Your task to perform on an android device: change keyboard looks Image 0: 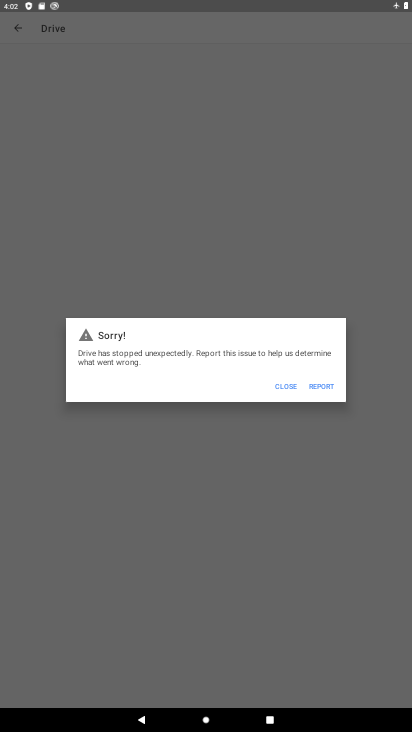
Step 0: press home button
Your task to perform on an android device: change keyboard looks Image 1: 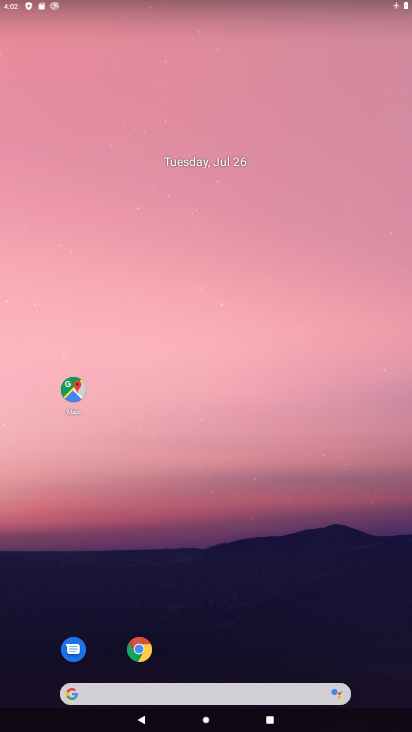
Step 1: drag from (247, 630) to (253, 253)
Your task to perform on an android device: change keyboard looks Image 2: 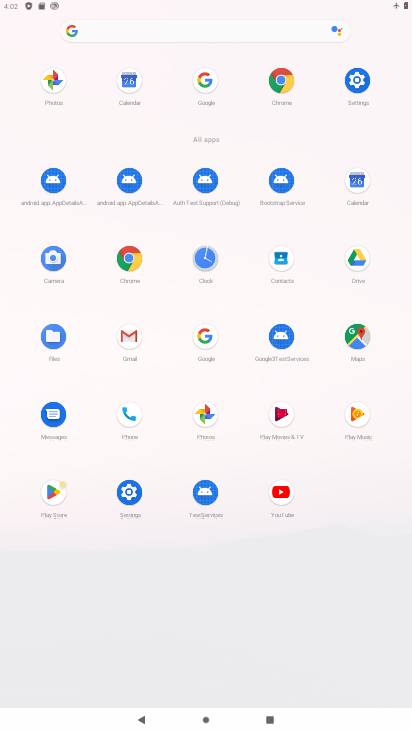
Step 2: click (360, 78)
Your task to perform on an android device: change keyboard looks Image 3: 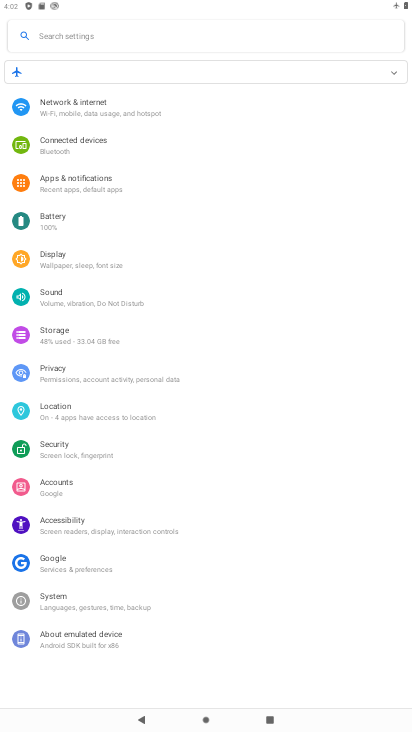
Step 3: click (97, 592)
Your task to perform on an android device: change keyboard looks Image 4: 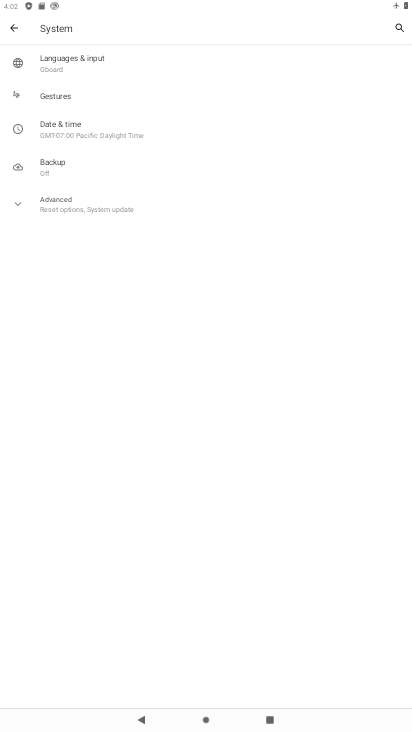
Step 4: click (85, 68)
Your task to perform on an android device: change keyboard looks Image 5: 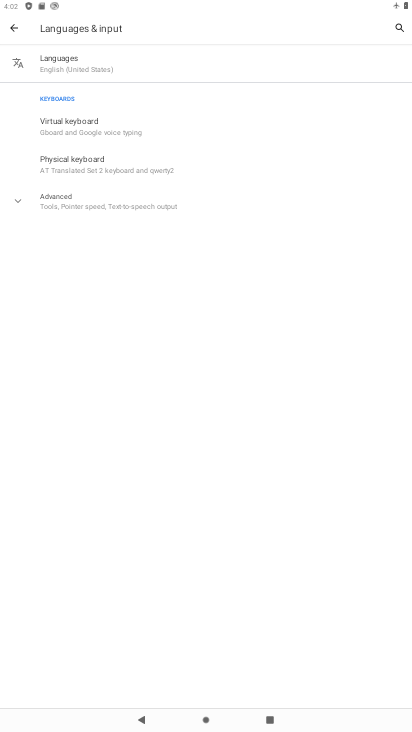
Step 5: click (49, 133)
Your task to perform on an android device: change keyboard looks Image 6: 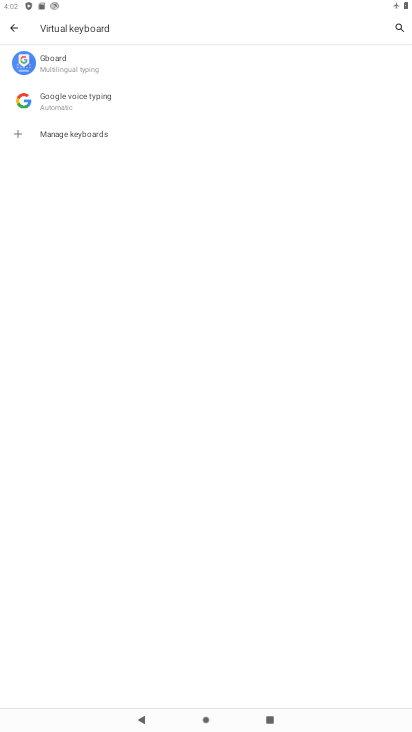
Step 6: click (78, 72)
Your task to perform on an android device: change keyboard looks Image 7: 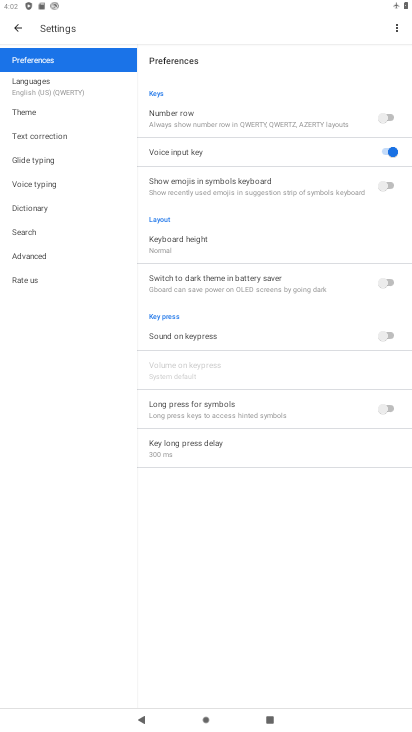
Step 7: click (39, 112)
Your task to perform on an android device: change keyboard looks Image 8: 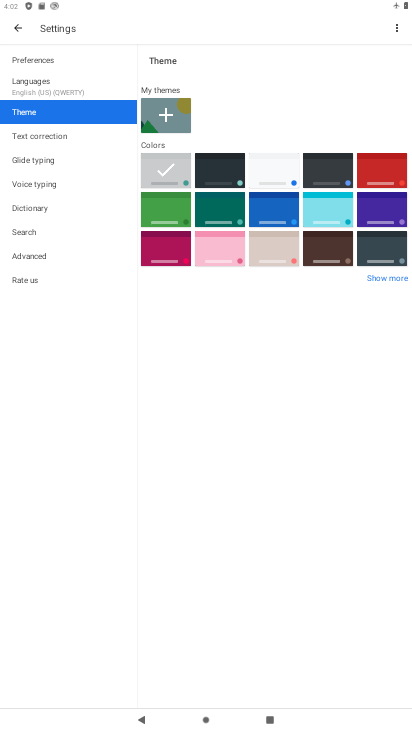
Step 8: click (307, 206)
Your task to perform on an android device: change keyboard looks Image 9: 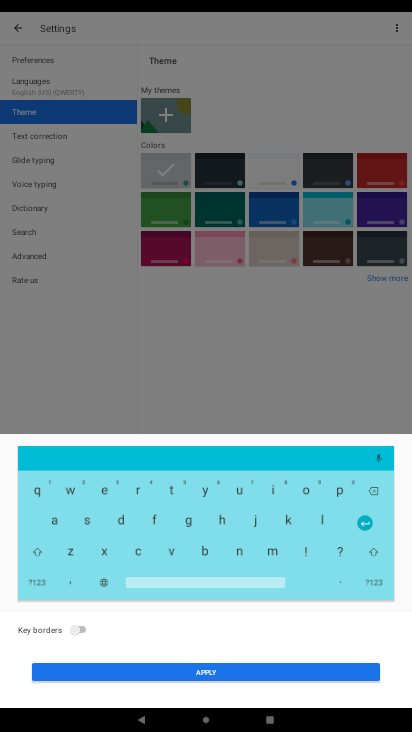
Step 9: click (214, 678)
Your task to perform on an android device: change keyboard looks Image 10: 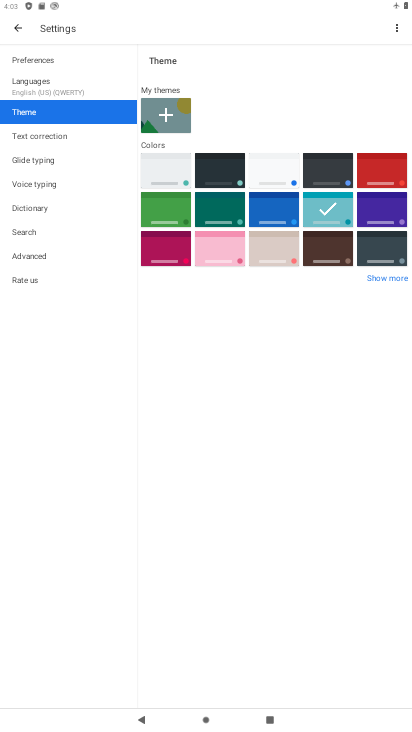
Step 10: task complete